Your task to perform on an android device: turn on javascript in the chrome app Image 0: 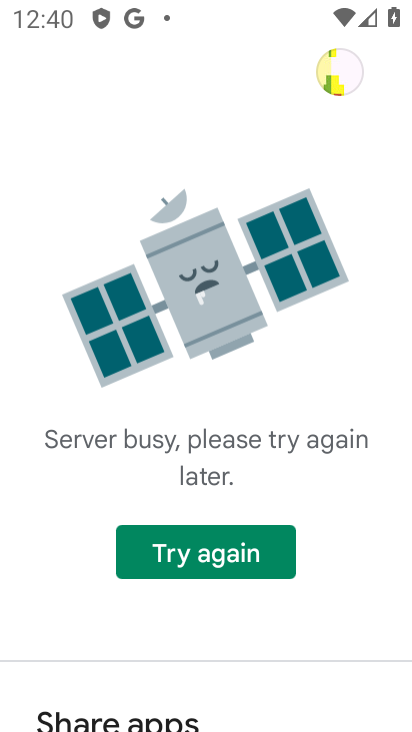
Step 0: press home button
Your task to perform on an android device: turn on javascript in the chrome app Image 1: 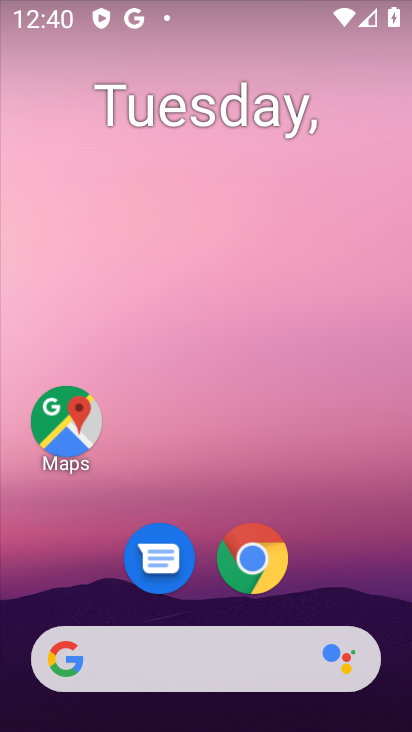
Step 1: drag from (368, 584) to (366, 190)
Your task to perform on an android device: turn on javascript in the chrome app Image 2: 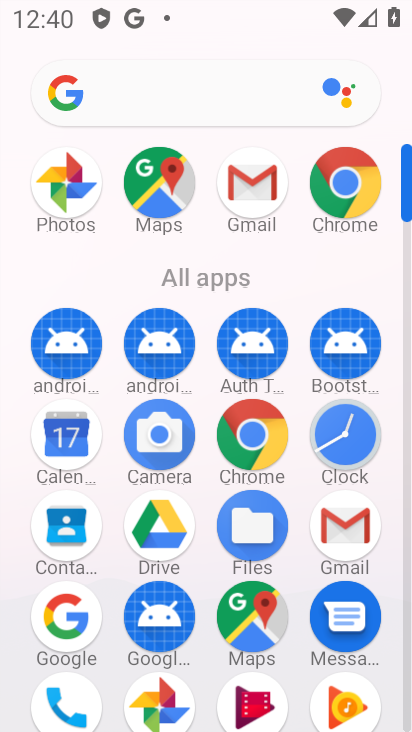
Step 2: click (264, 443)
Your task to perform on an android device: turn on javascript in the chrome app Image 3: 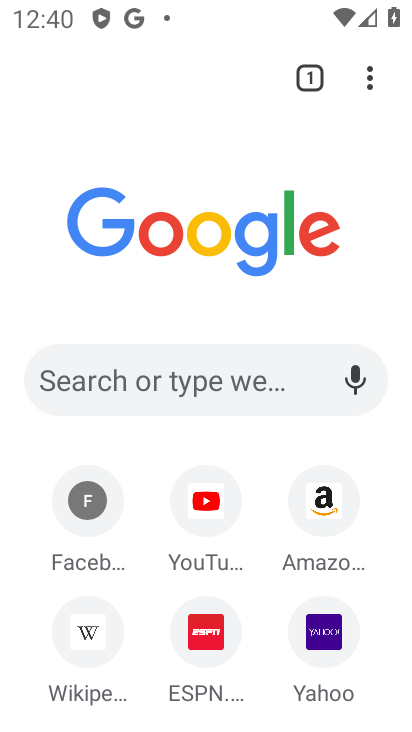
Step 3: click (367, 81)
Your task to perform on an android device: turn on javascript in the chrome app Image 4: 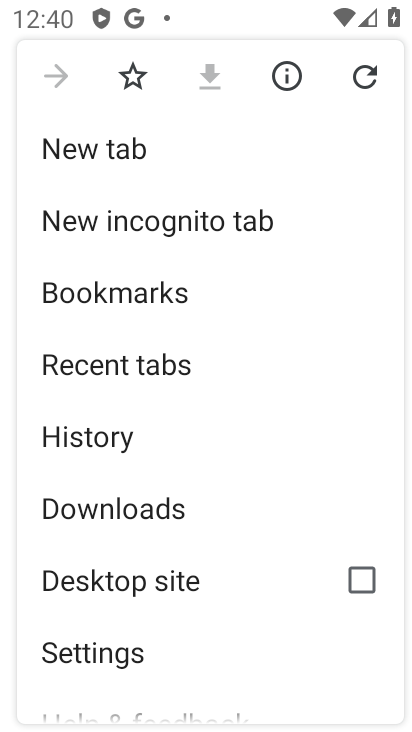
Step 4: click (98, 670)
Your task to perform on an android device: turn on javascript in the chrome app Image 5: 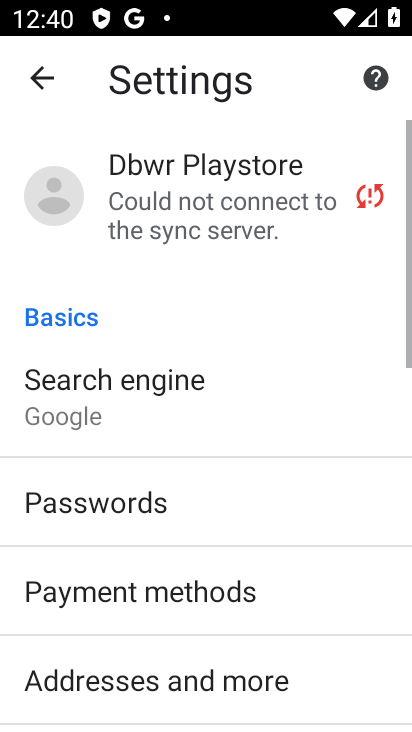
Step 5: drag from (284, 624) to (286, 523)
Your task to perform on an android device: turn on javascript in the chrome app Image 6: 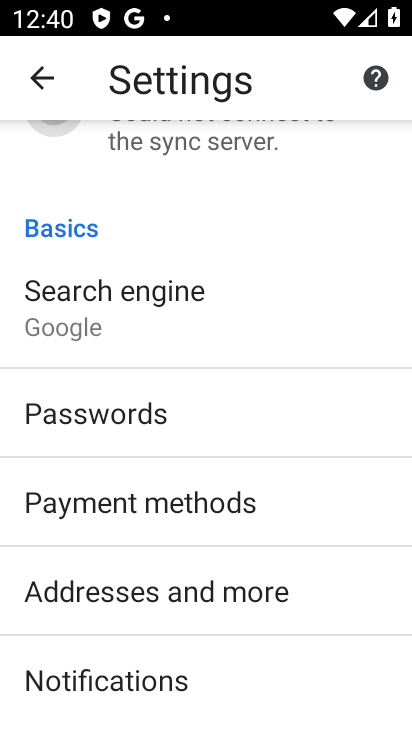
Step 6: drag from (300, 598) to (305, 507)
Your task to perform on an android device: turn on javascript in the chrome app Image 7: 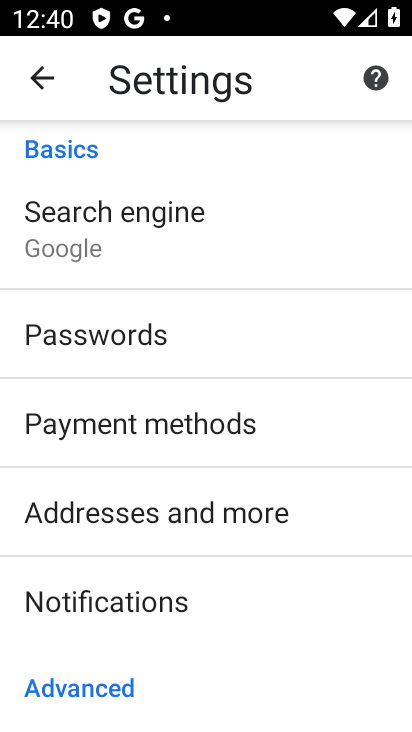
Step 7: drag from (310, 593) to (312, 497)
Your task to perform on an android device: turn on javascript in the chrome app Image 8: 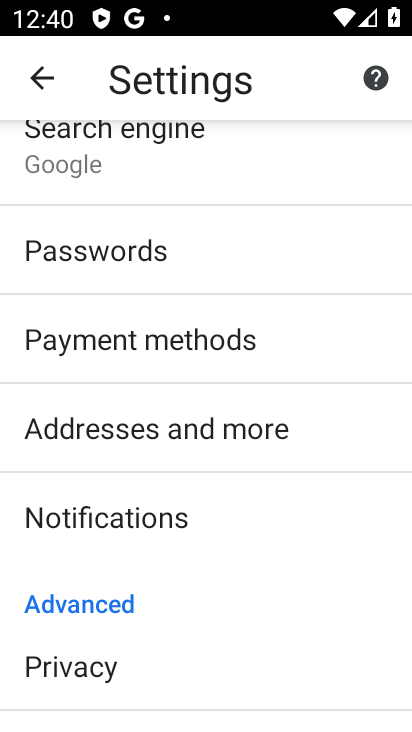
Step 8: drag from (310, 573) to (324, 513)
Your task to perform on an android device: turn on javascript in the chrome app Image 9: 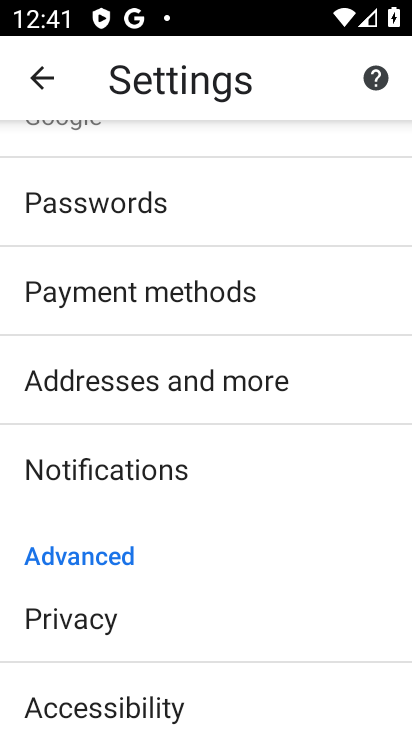
Step 9: drag from (307, 578) to (307, 506)
Your task to perform on an android device: turn on javascript in the chrome app Image 10: 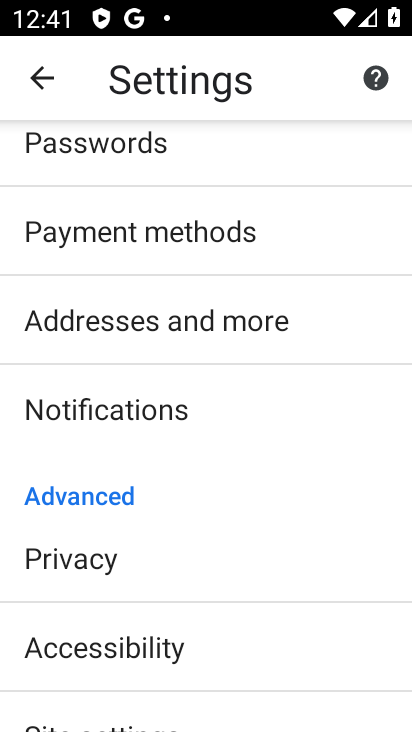
Step 10: drag from (291, 616) to (295, 532)
Your task to perform on an android device: turn on javascript in the chrome app Image 11: 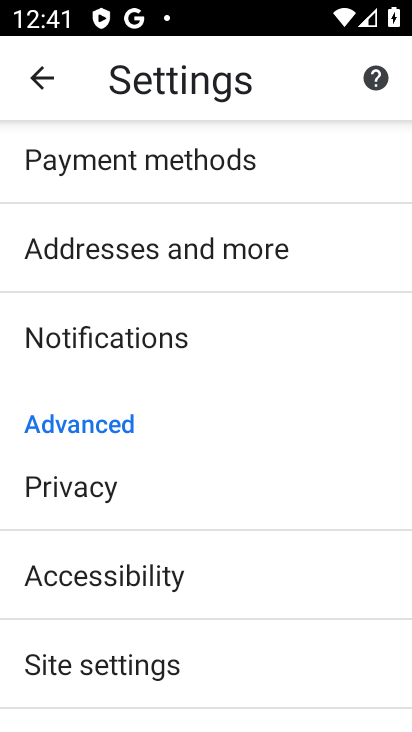
Step 11: drag from (295, 575) to (307, 535)
Your task to perform on an android device: turn on javascript in the chrome app Image 12: 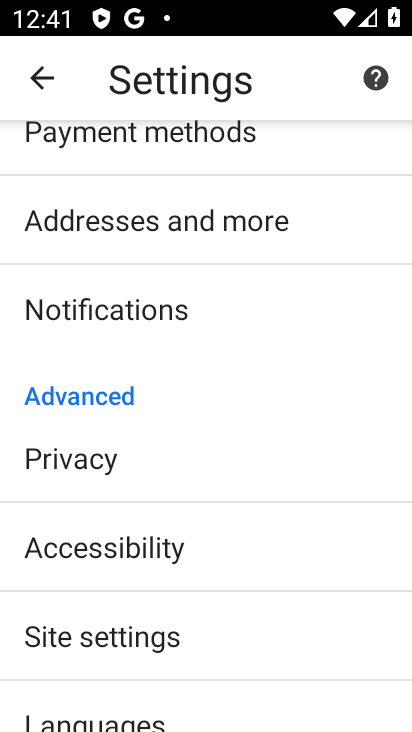
Step 12: drag from (305, 596) to (318, 550)
Your task to perform on an android device: turn on javascript in the chrome app Image 13: 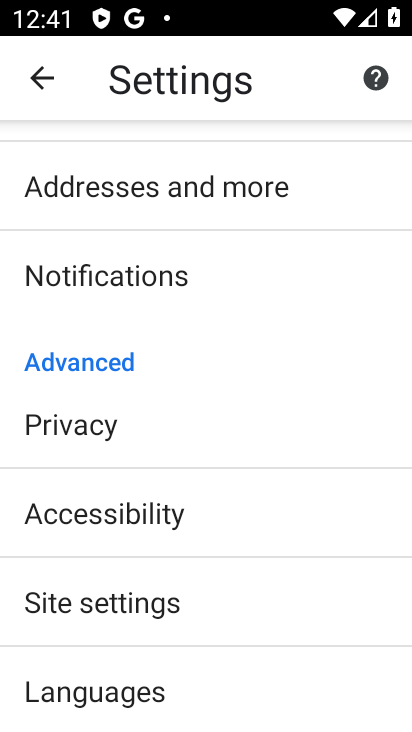
Step 13: drag from (299, 631) to (303, 557)
Your task to perform on an android device: turn on javascript in the chrome app Image 14: 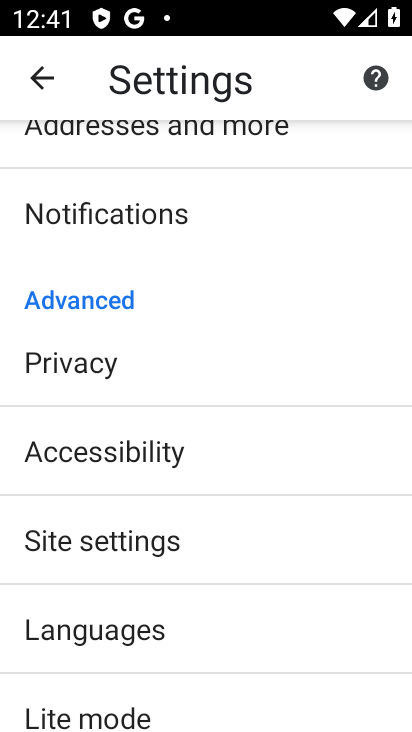
Step 14: drag from (287, 603) to (299, 525)
Your task to perform on an android device: turn on javascript in the chrome app Image 15: 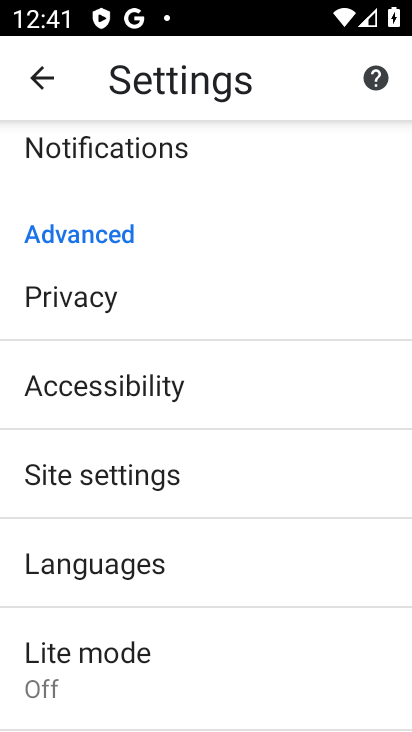
Step 15: click (243, 495)
Your task to perform on an android device: turn on javascript in the chrome app Image 16: 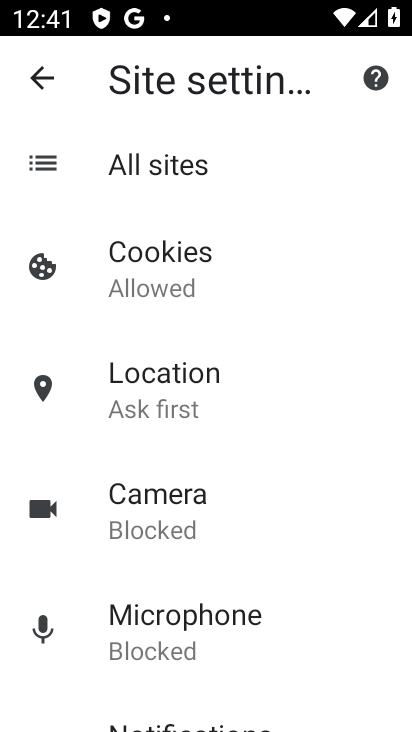
Step 16: drag from (308, 560) to (307, 480)
Your task to perform on an android device: turn on javascript in the chrome app Image 17: 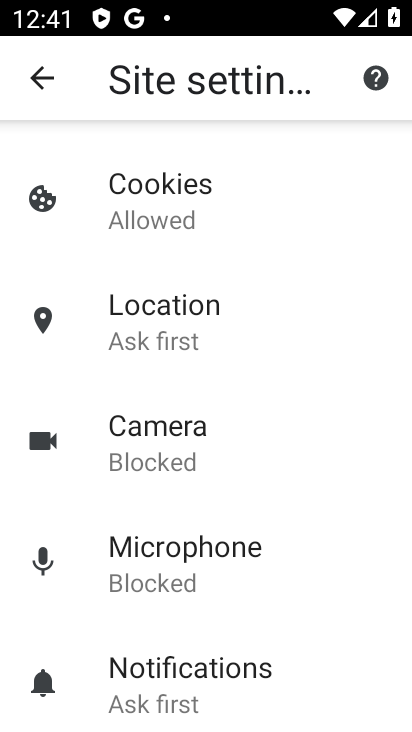
Step 17: click (297, 605)
Your task to perform on an android device: turn on javascript in the chrome app Image 18: 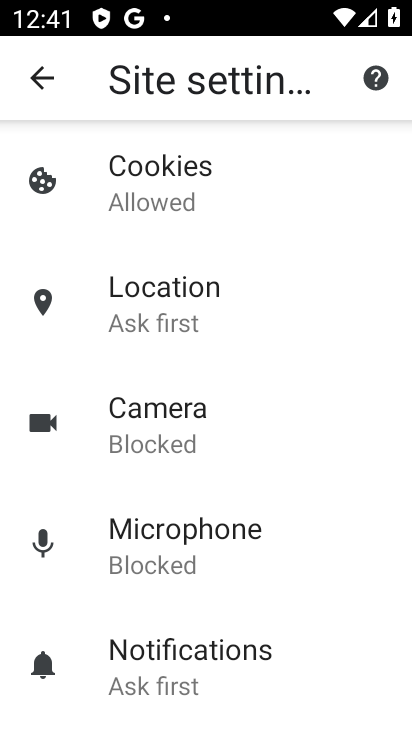
Step 18: drag from (306, 602) to (308, 523)
Your task to perform on an android device: turn on javascript in the chrome app Image 19: 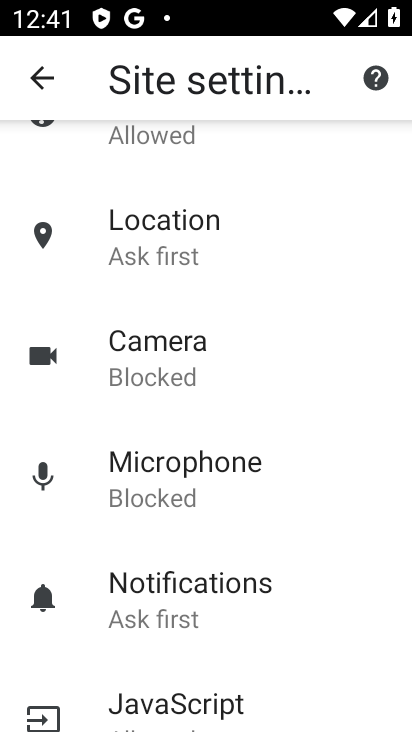
Step 19: drag from (315, 575) to (314, 526)
Your task to perform on an android device: turn on javascript in the chrome app Image 20: 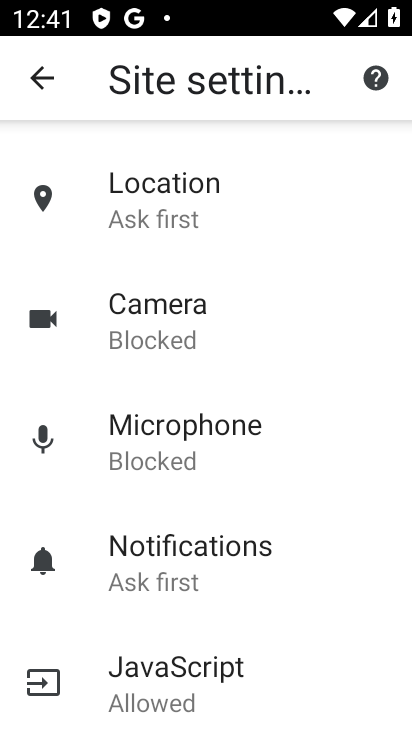
Step 20: drag from (303, 602) to (314, 510)
Your task to perform on an android device: turn on javascript in the chrome app Image 21: 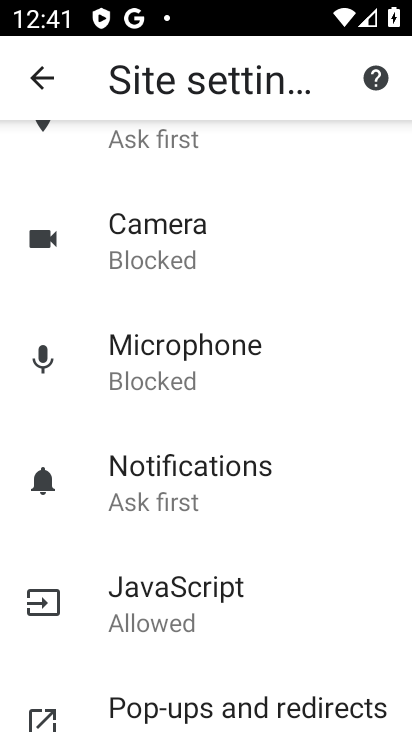
Step 21: click (209, 604)
Your task to perform on an android device: turn on javascript in the chrome app Image 22: 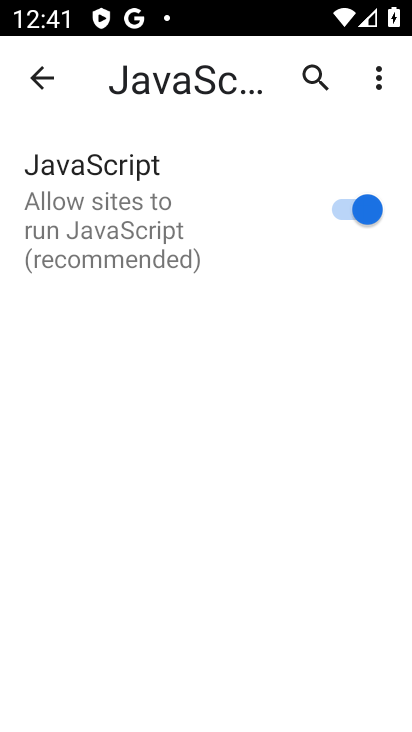
Step 22: task complete